Your task to perform on an android device: open a new tab in the chrome app Image 0: 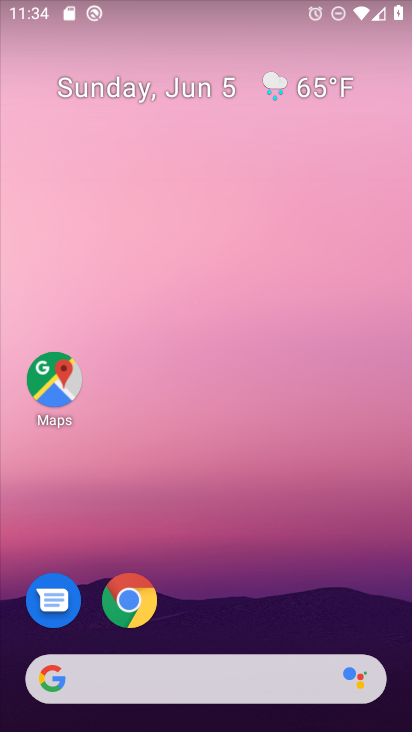
Step 0: drag from (380, 613) to (331, 69)
Your task to perform on an android device: open a new tab in the chrome app Image 1: 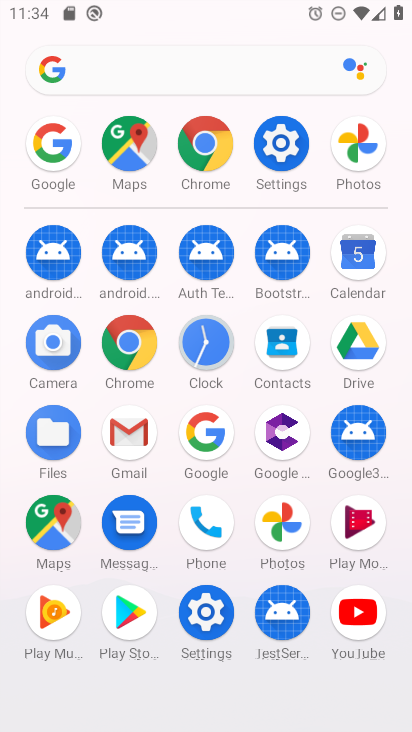
Step 1: click (210, 151)
Your task to perform on an android device: open a new tab in the chrome app Image 2: 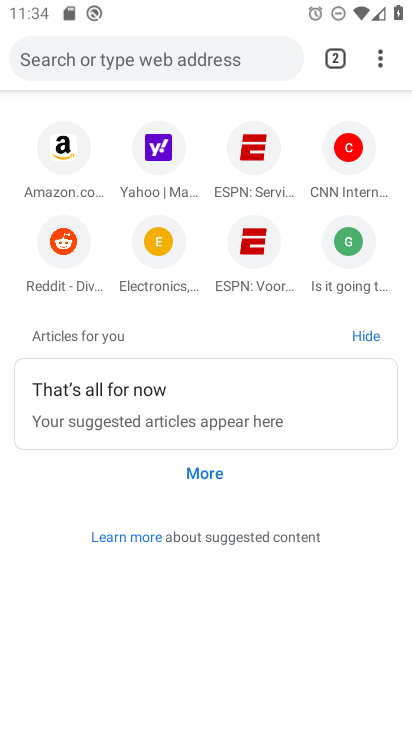
Step 2: click (384, 61)
Your task to perform on an android device: open a new tab in the chrome app Image 3: 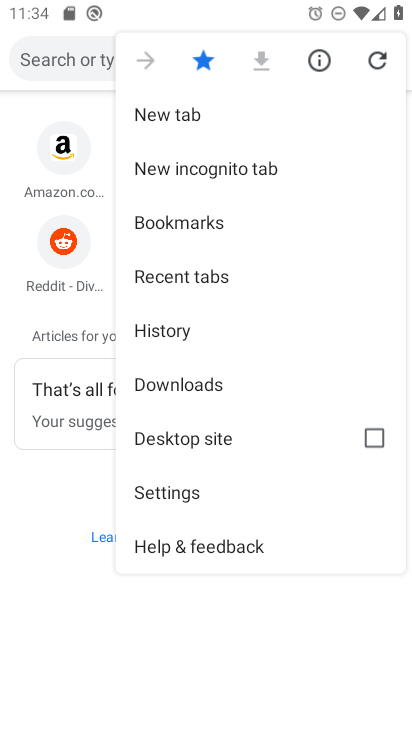
Step 3: click (185, 116)
Your task to perform on an android device: open a new tab in the chrome app Image 4: 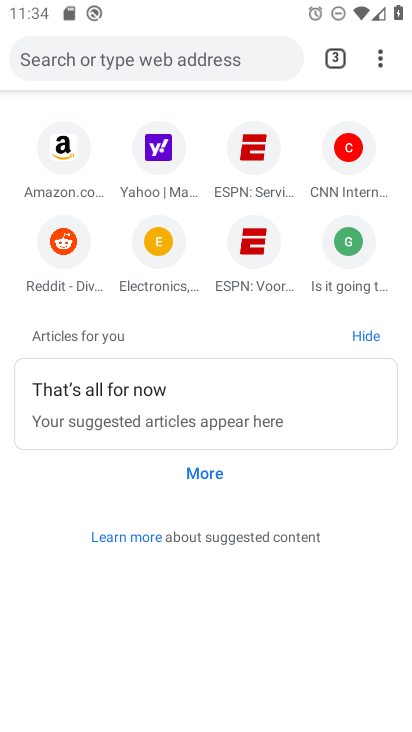
Step 4: task complete